Your task to perform on an android device: delete a single message in the gmail app Image 0: 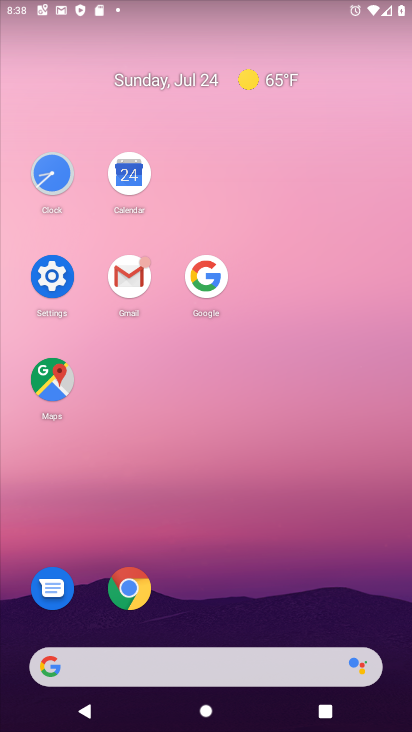
Step 0: click (130, 274)
Your task to perform on an android device: delete a single message in the gmail app Image 1: 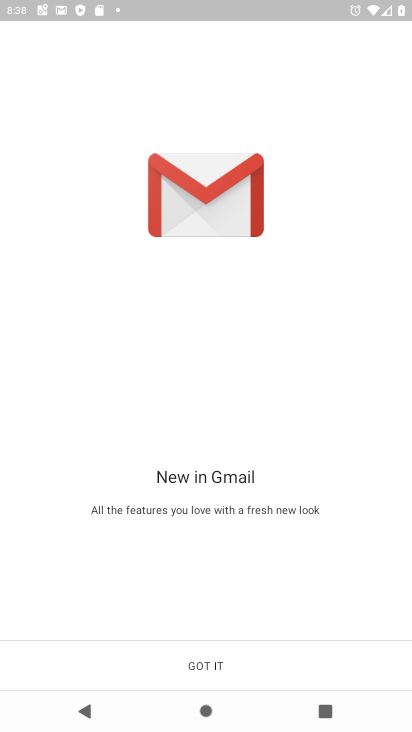
Step 1: click (274, 650)
Your task to perform on an android device: delete a single message in the gmail app Image 2: 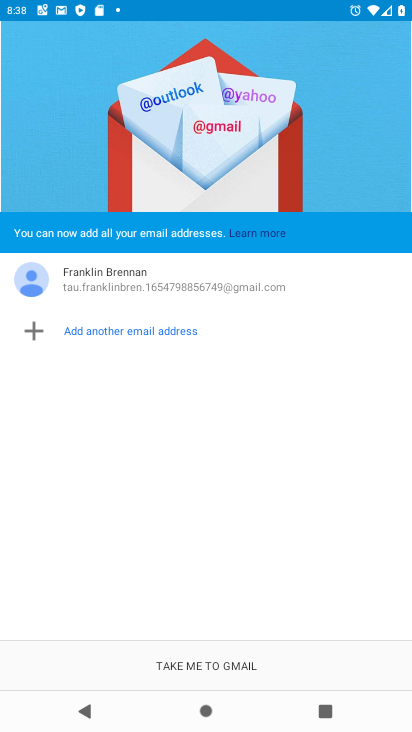
Step 2: click (271, 648)
Your task to perform on an android device: delete a single message in the gmail app Image 3: 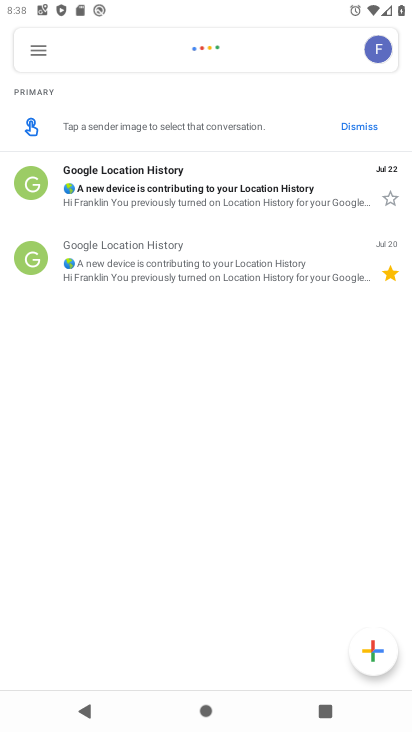
Step 3: click (131, 190)
Your task to perform on an android device: delete a single message in the gmail app Image 4: 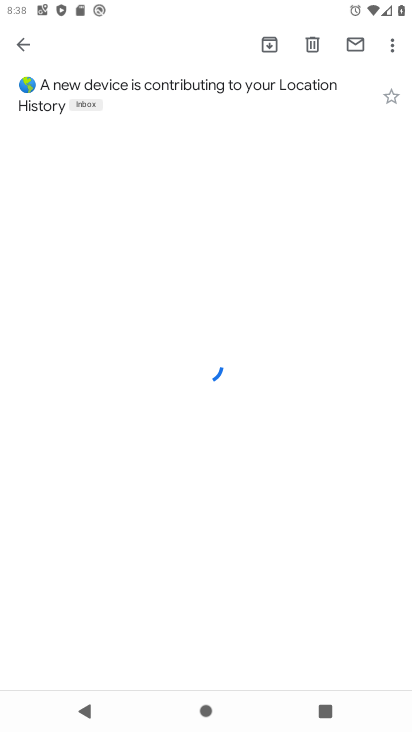
Step 4: click (313, 42)
Your task to perform on an android device: delete a single message in the gmail app Image 5: 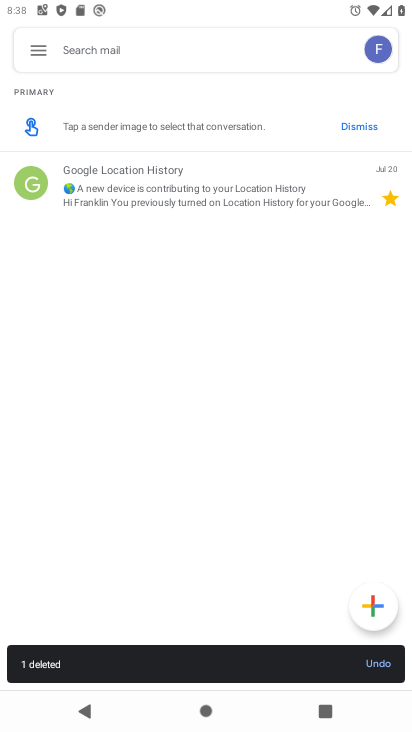
Step 5: task complete